Your task to perform on an android device: Search for sushi restaurants on Maps Image 0: 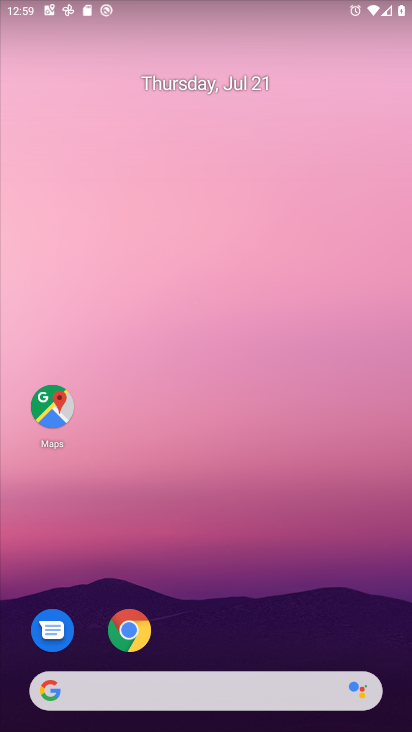
Step 0: drag from (200, 649) to (290, 138)
Your task to perform on an android device: Search for sushi restaurants on Maps Image 1: 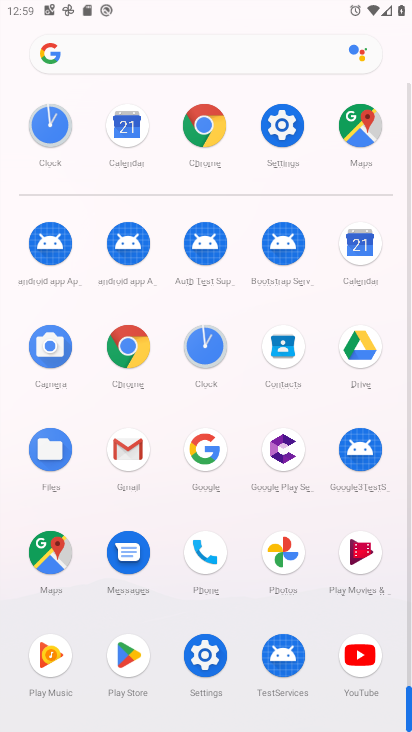
Step 1: click (42, 554)
Your task to perform on an android device: Search for sushi restaurants on Maps Image 2: 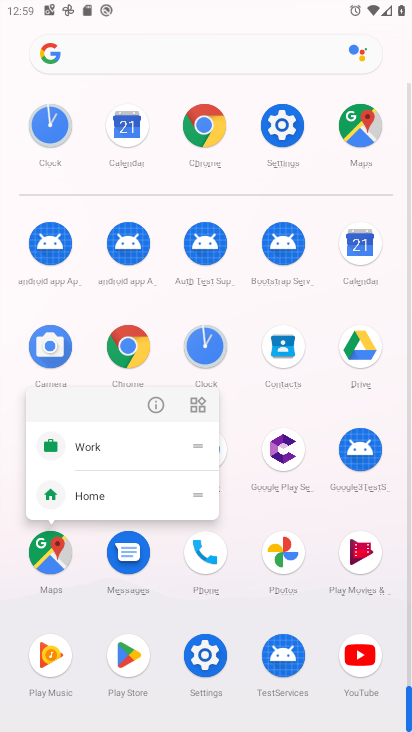
Step 2: click (150, 406)
Your task to perform on an android device: Search for sushi restaurants on Maps Image 3: 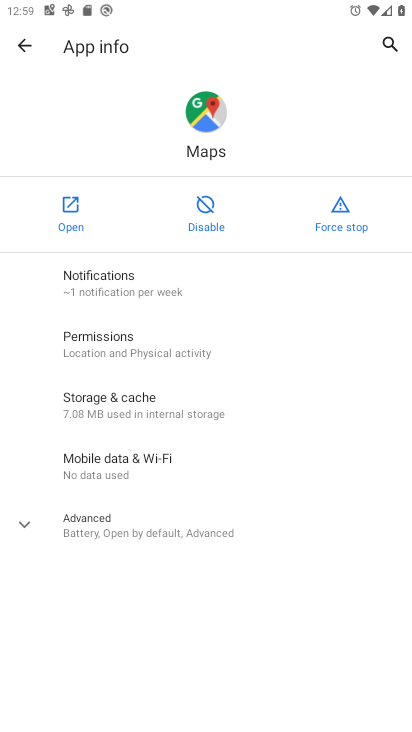
Step 3: click (69, 227)
Your task to perform on an android device: Search for sushi restaurants on Maps Image 4: 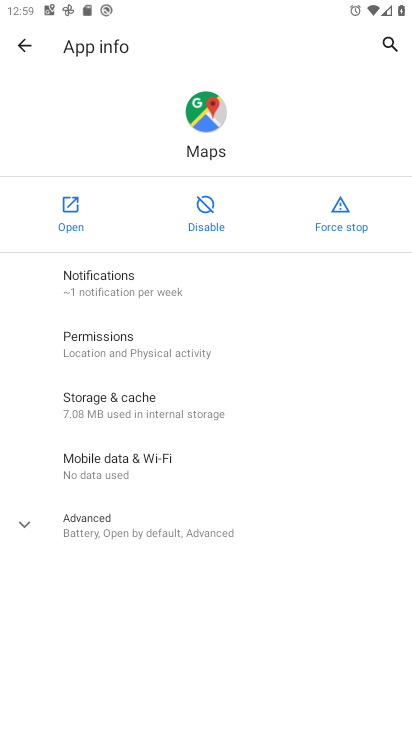
Step 4: click (69, 227)
Your task to perform on an android device: Search for sushi restaurants on Maps Image 5: 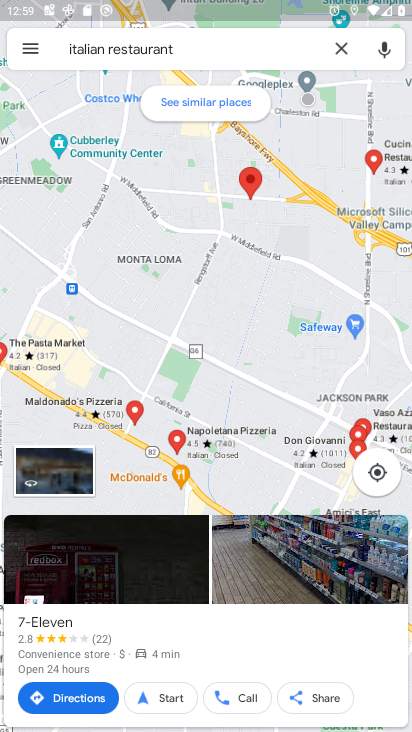
Step 5: click (331, 47)
Your task to perform on an android device: Search for sushi restaurants on Maps Image 6: 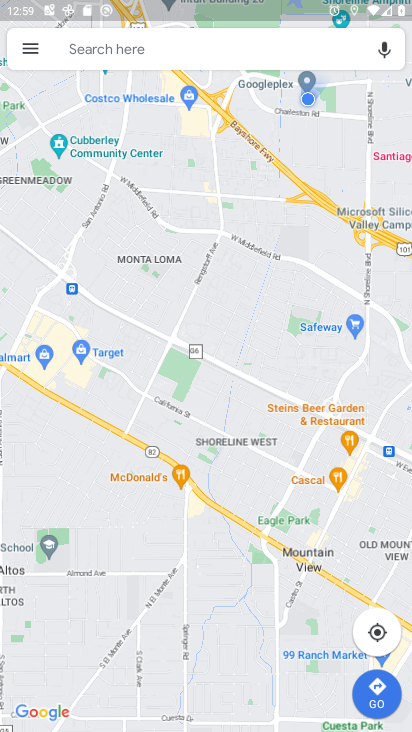
Step 6: click (208, 57)
Your task to perform on an android device: Search for sushi restaurants on Maps Image 7: 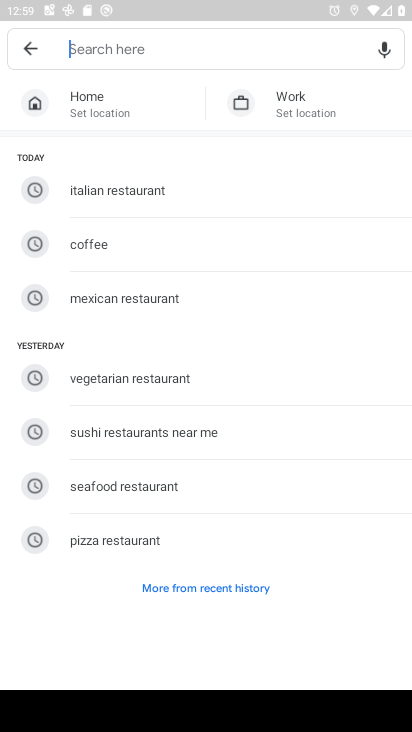
Step 7: type "sushi restaurants"
Your task to perform on an android device: Search for sushi restaurants on Maps Image 8: 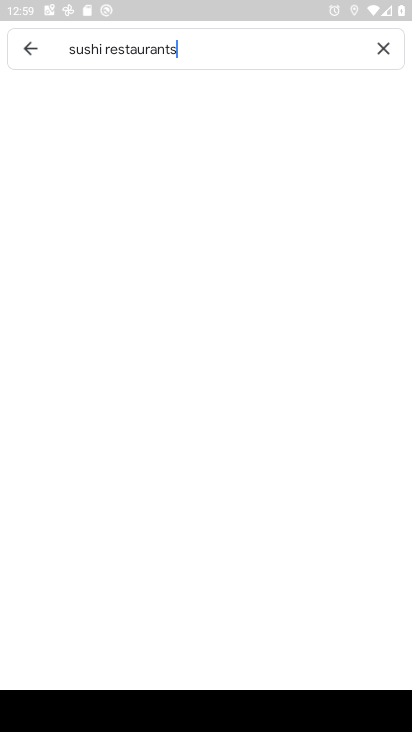
Step 8: type ""
Your task to perform on an android device: Search for sushi restaurants on Maps Image 9: 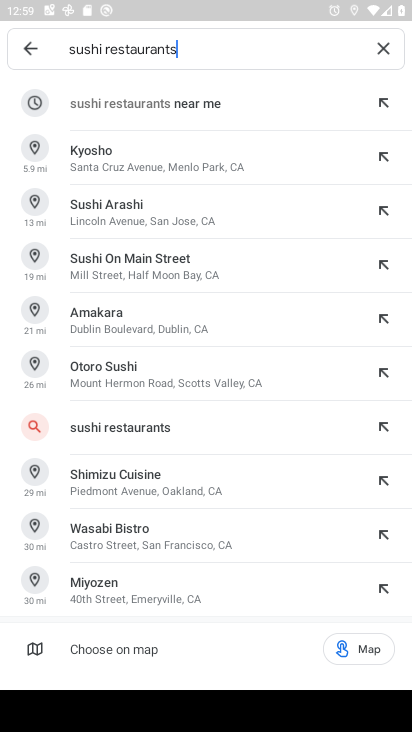
Step 9: click (150, 423)
Your task to perform on an android device: Search for sushi restaurants on Maps Image 10: 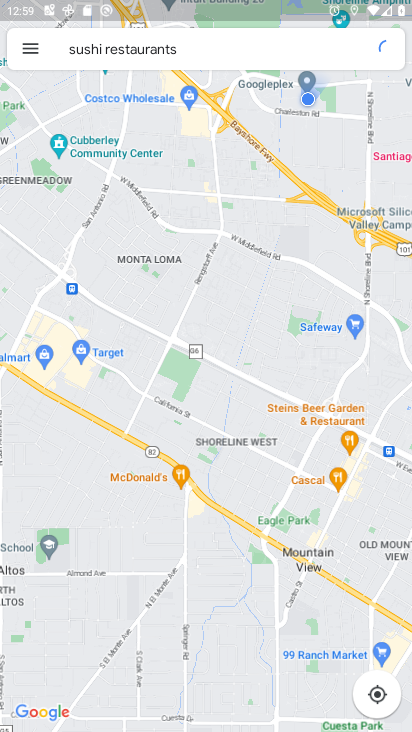
Step 10: task complete